Your task to perform on an android device: Open battery settings Image 0: 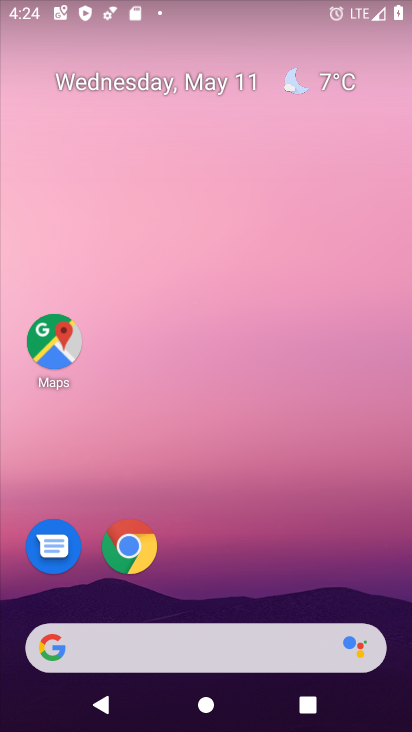
Step 0: drag from (351, 623) to (335, 0)
Your task to perform on an android device: Open battery settings Image 1: 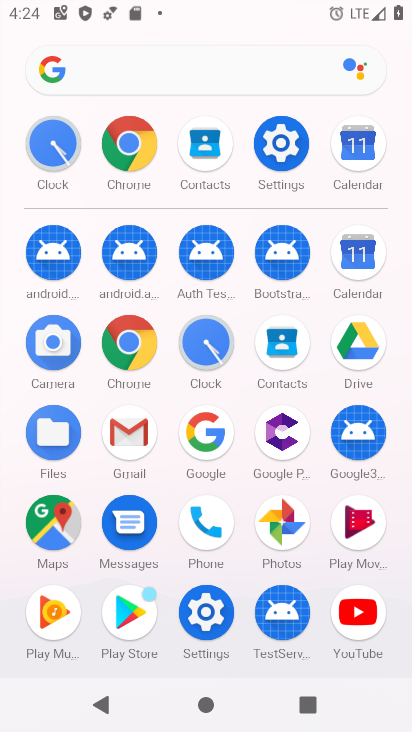
Step 1: click (282, 128)
Your task to perform on an android device: Open battery settings Image 2: 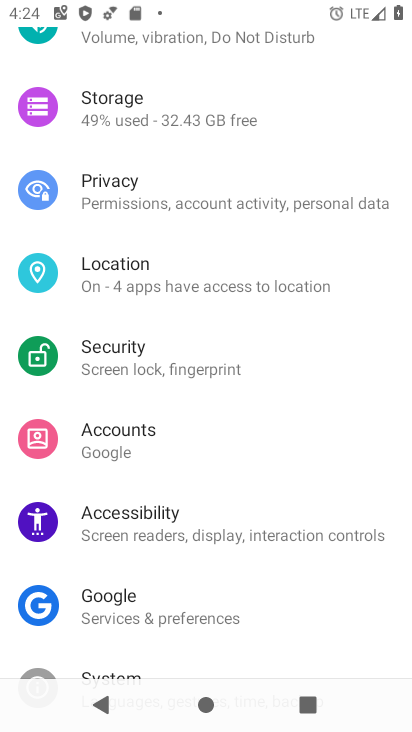
Step 2: drag from (245, 201) to (88, 731)
Your task to perform on an android device: Open battery settings Image 3: 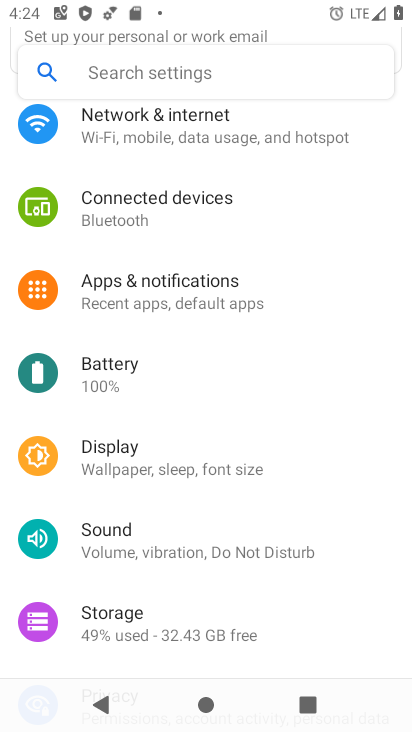
Step 3: click (189, 377)
Your task to perform on an android device: Open battery settings Image 4: 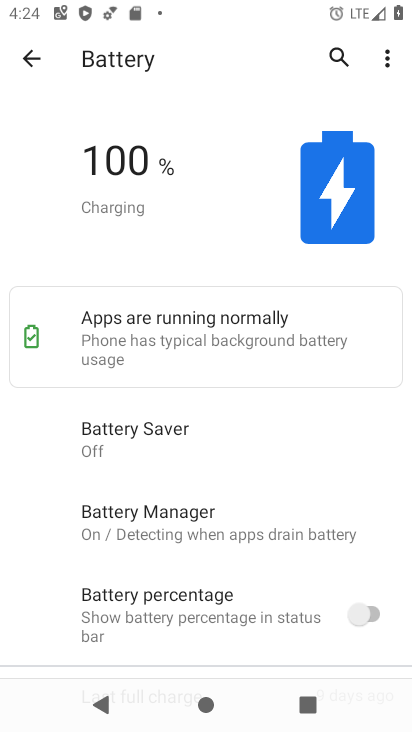
Step 4: task complete